Your task to perform on an android device: Search for Italian restaurants on Maps Image 0: 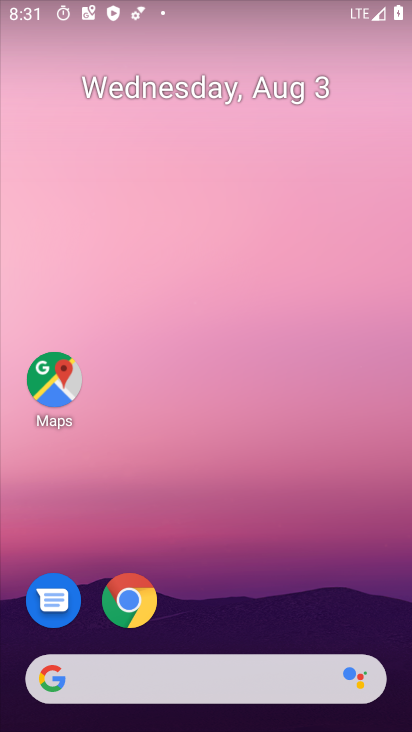
Step 0: click (70, 375)
Your task to perform on an android device: Search for Italian restaurants on Maps Image 1: 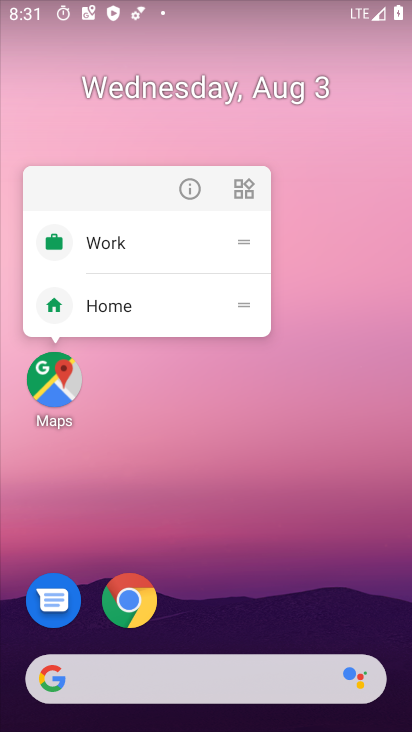
Step 1: click (62, 379)
Your task to perform on an android device: Search for Italian restaurants on Maps Image 2: 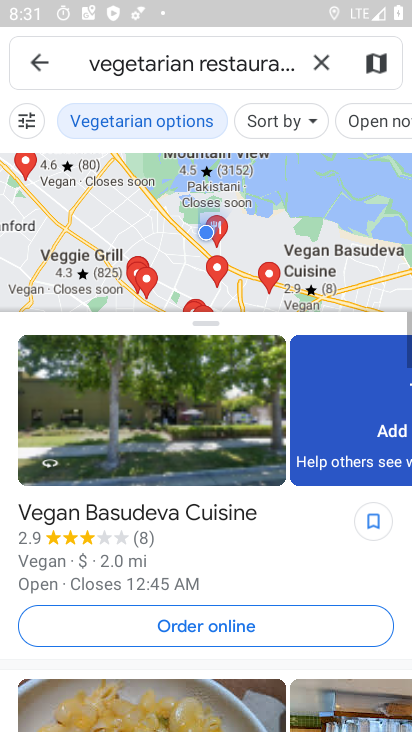
Step 2: click (132, 67)
Your task to perform on an android device: Search for Italian restaurants on Maps Image 3: 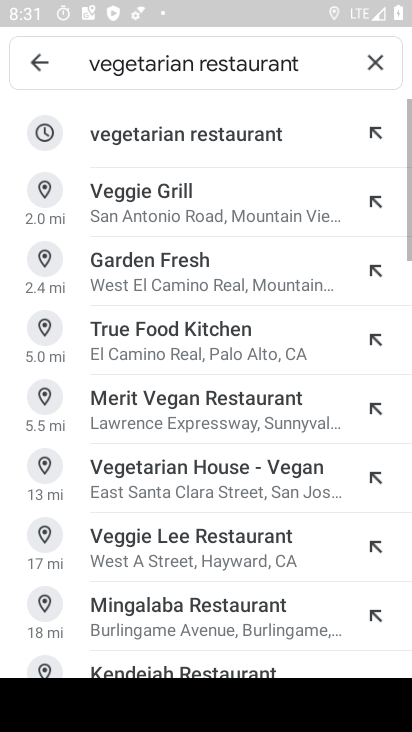
Step 3: click (137, 70)
Your task to perform on an android device: Search for Italian restaurants on Maps Image 4: 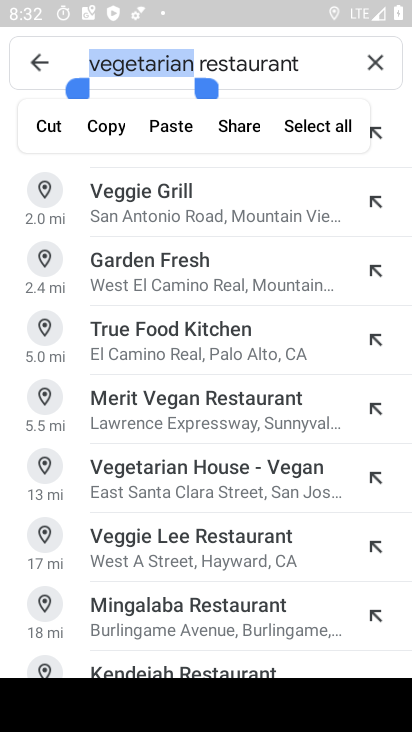
Step 4: type "Italian"
Your task to perform on an android device: Search for Italian restaurants on Maps Image 5: 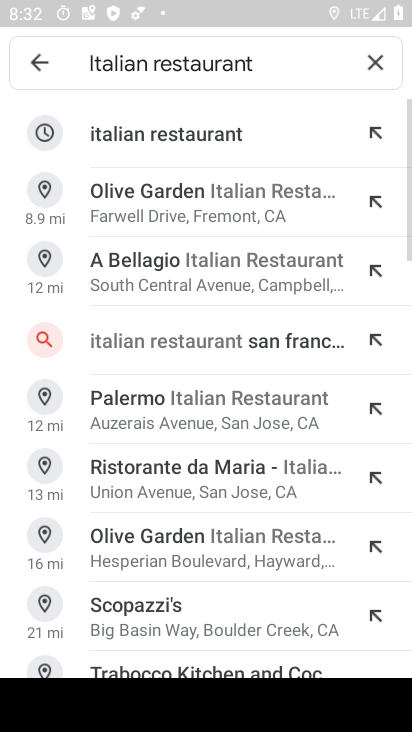
Step 5: click (209, 135)
Your task to perform on an android device: Search for Italian restaurants on Maps Image 6: 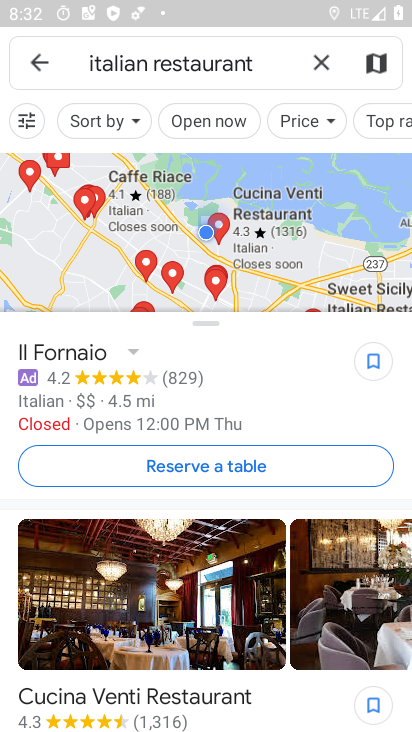
Step 6: task complete